Your task to perform on an android device: change notification settings in the gmail app Image 0: 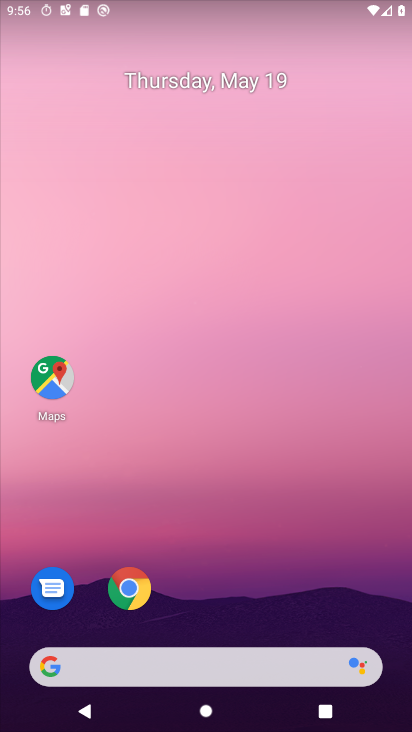
Step 0: drag from (168, 662) to (327, 183)
Your task to perform on an android device: change notification settings in the gmail app Image 1: 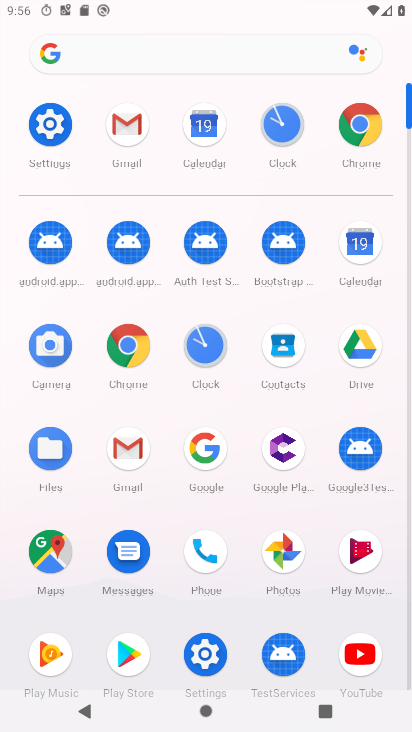
Step 1: click (125, 131)
Your task to perform on an android device: change notification settings in the gmail app Image 2: 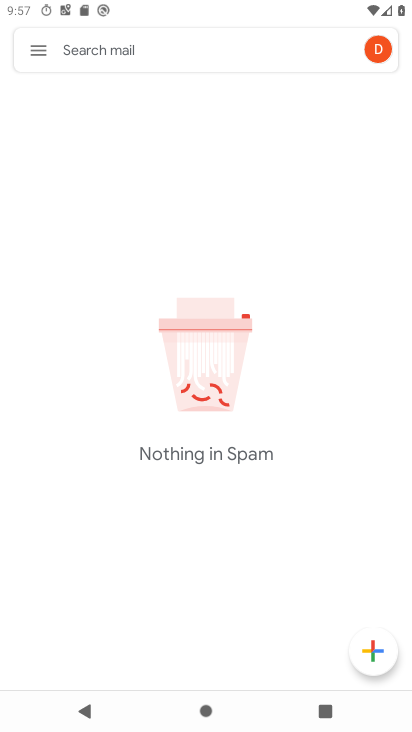
Step 2: click (35, 52)
Your task to perform on an android device: change notification settings in the gmail app Image 3: 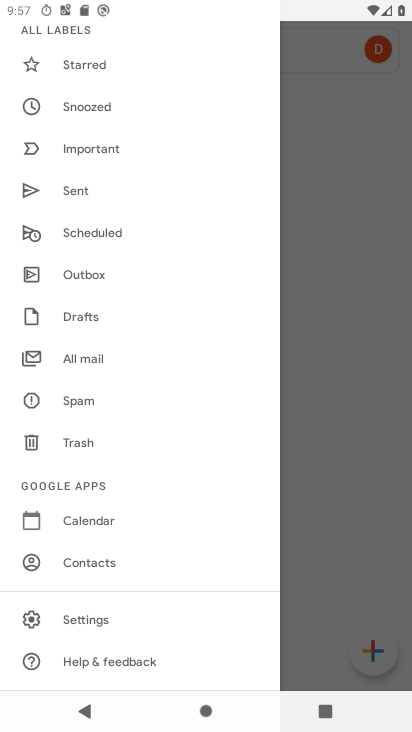
Step 3: click (94, 619)
Your task to perform on an android device: change notification settings in the gmail app Image 4: 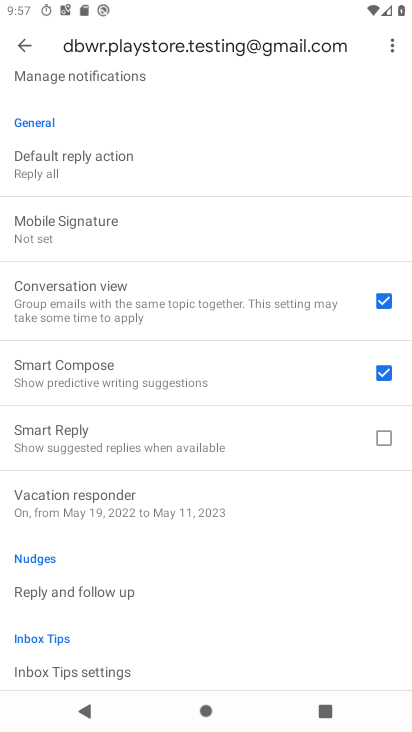
Step 4: drag from (254, 124) to (200, 512)
Your task to perform on an android device: change notification settings in the gmail app Image 5: 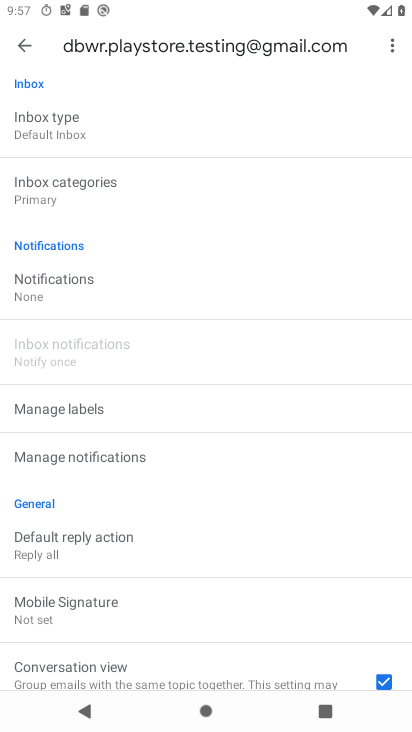
Step 5: click (63, 291)
Your task to perform on an android device: change notification settings in the gmail app Image 6: 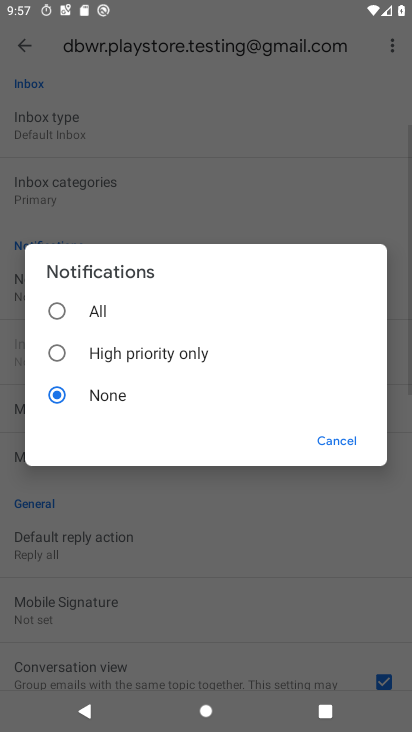
Step 6: click (56, 314)
Your task to perform on an android device: change notification settings in the gmail app Image 7: 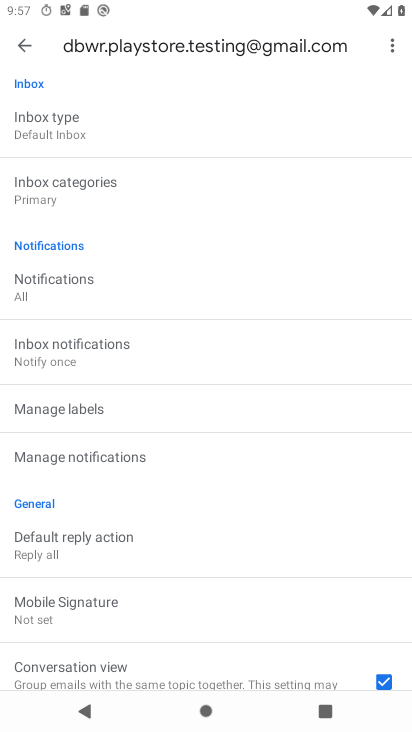
Step 7: task complete